Your task to perform on an android device: turn smart compose on in the gmail app Image 0: 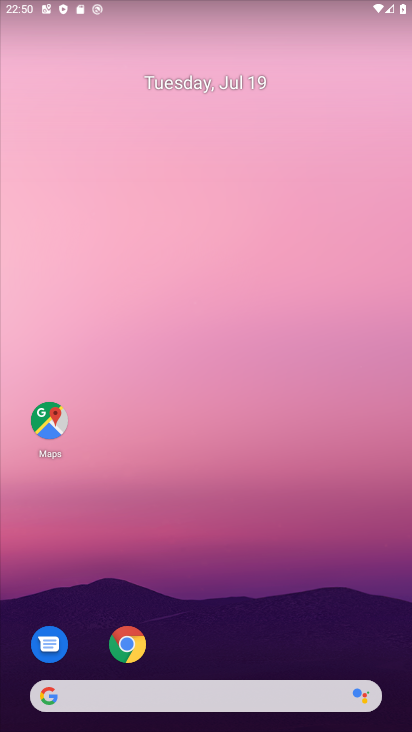
Step 0: drag from (215, 555) to (283, 125)
Your task to perform on an android device: turn smart compose on in the gmail app Image 1: 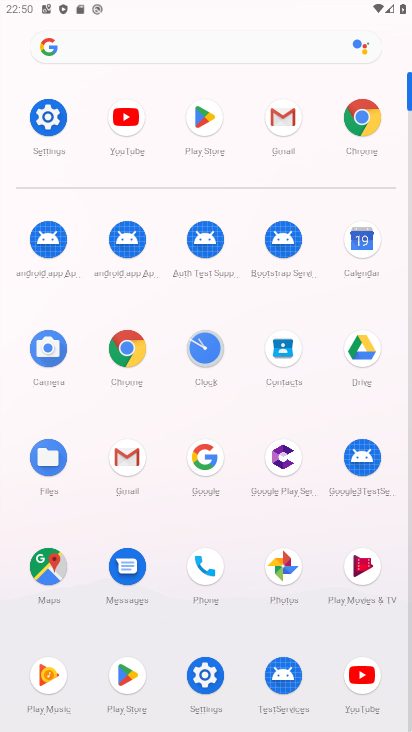
Step 1: click (130, 464)
Your task to perform on an android device: turn smart compose on in the gmail app Image 2: 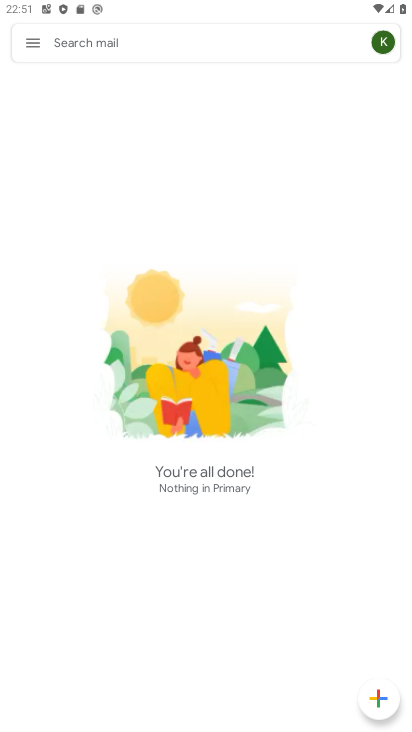
Step 2: click (28, 47)
Your task to perform on an android device: turn smart compose on in the gmail app Image 3: 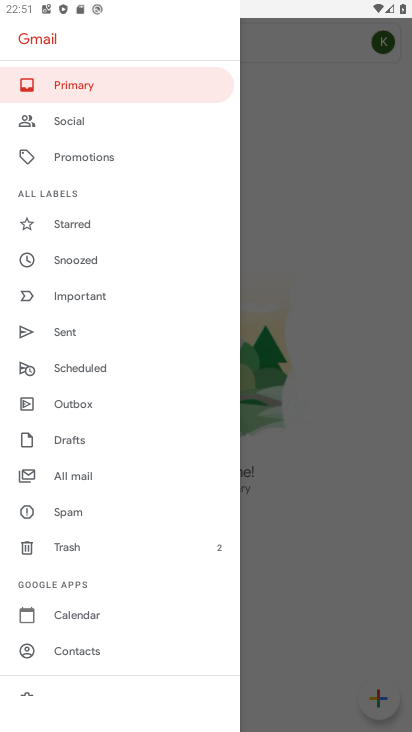
Step 3: drag from (93, 620) to (107, 397)
Your task to perform on an android device: turn smart compose on in the gmail app Image 4: 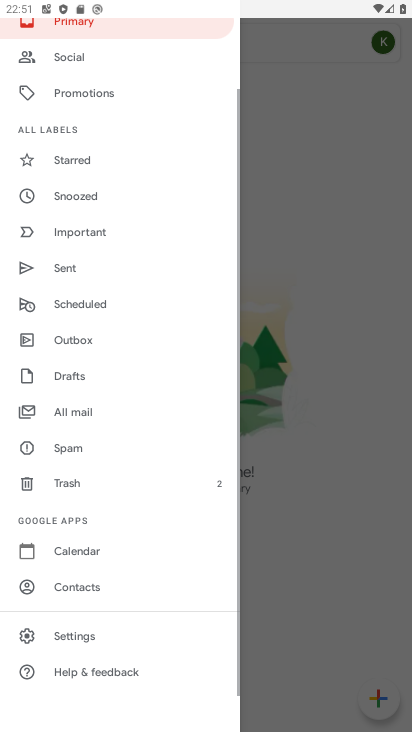
Step 4: click (79, 633)
Your task to perform on an android device: turn smart compose on in the gmail app Image 5: 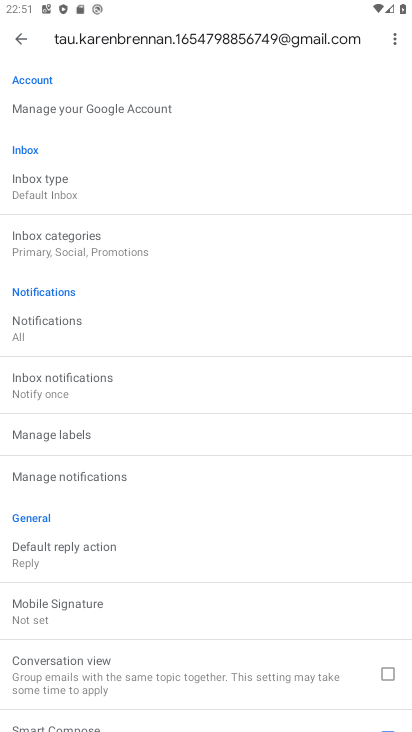
Step 5: task complete